Your task to perform on an android device: Open calendar and show me the second week of next month Image 0: 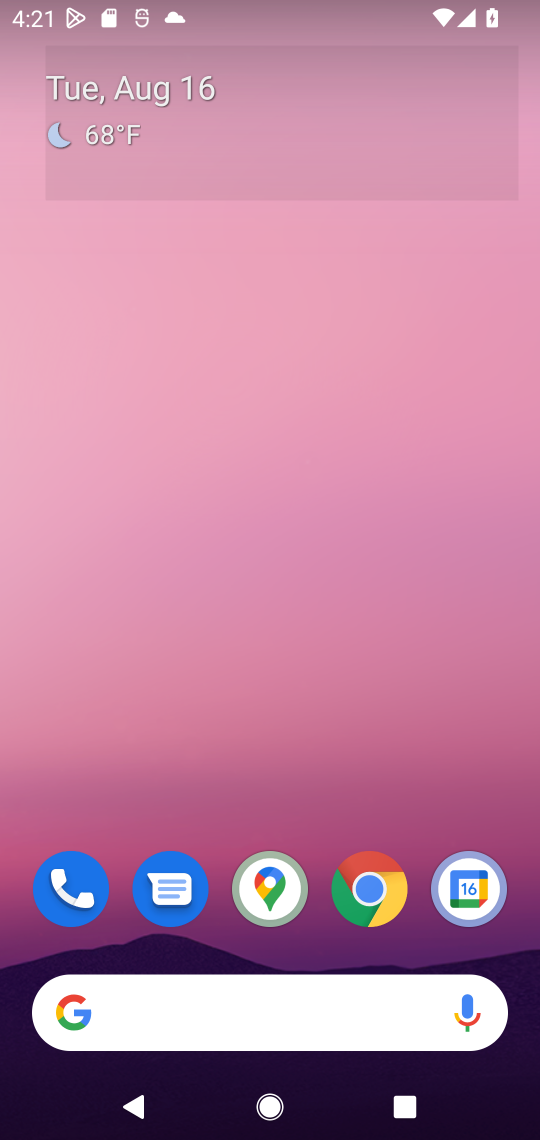
Step 0: click (485, 917)
Your task to perform on an android device: Open calendar and show me the second week of next month Image 1: 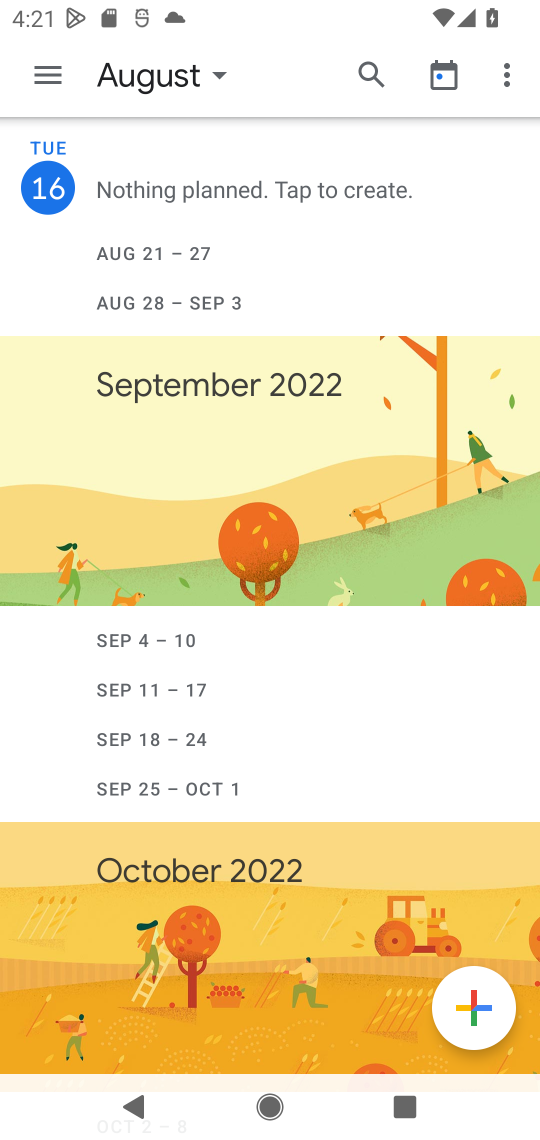
Step 1: task complete